Your task to perform on an android device: Go to location settings Image 0: 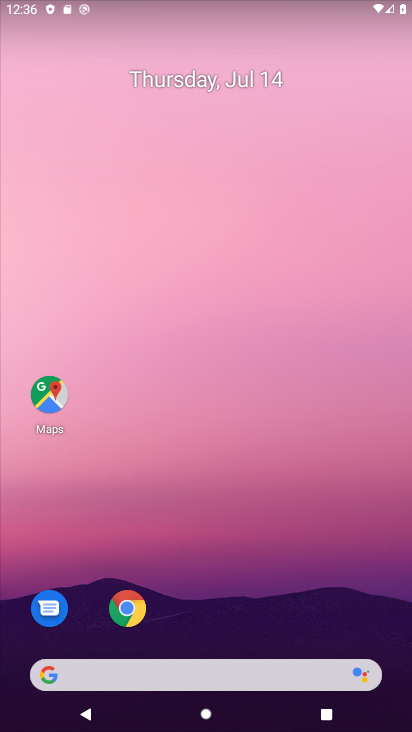
Step 0: drag from (291, 611) to (331, 38)
Your task to perform on an android device: Go to location settings Image 1: 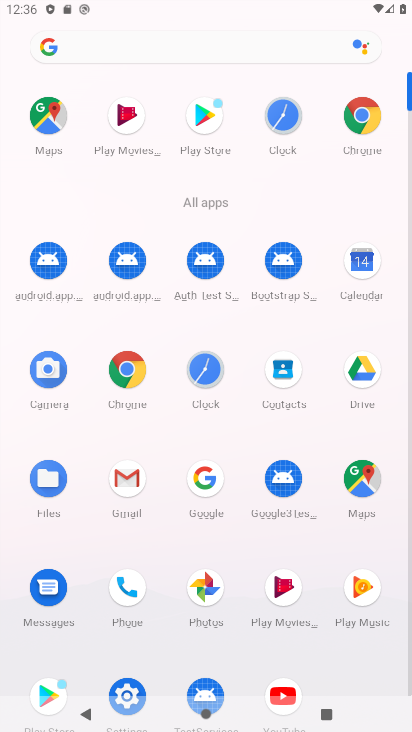
Step 1: click (54, 127)
Your task to perform on an android device: Go to location settings Image 2: 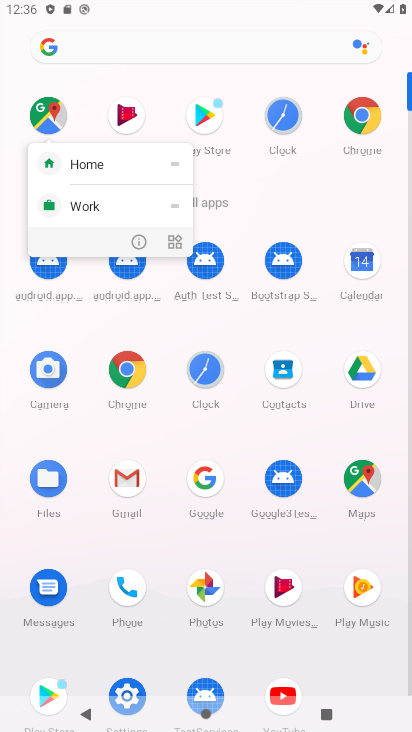
Step 2: press home button
Your task to perform on an android device: Go to location settings Image 3: 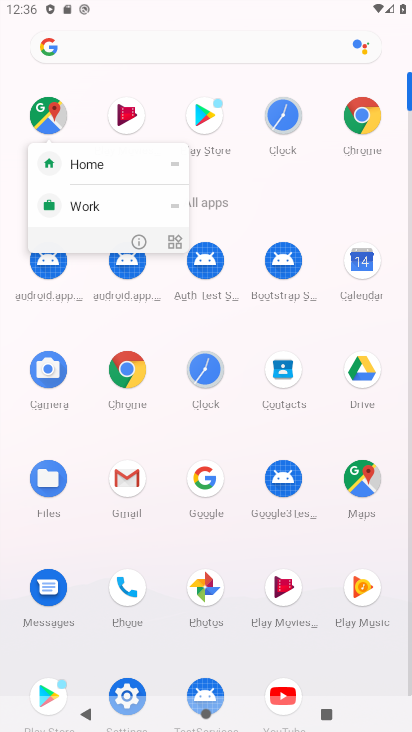
Step 3: press home button
Your task to perform on an android device: Go to location settings Image 4: 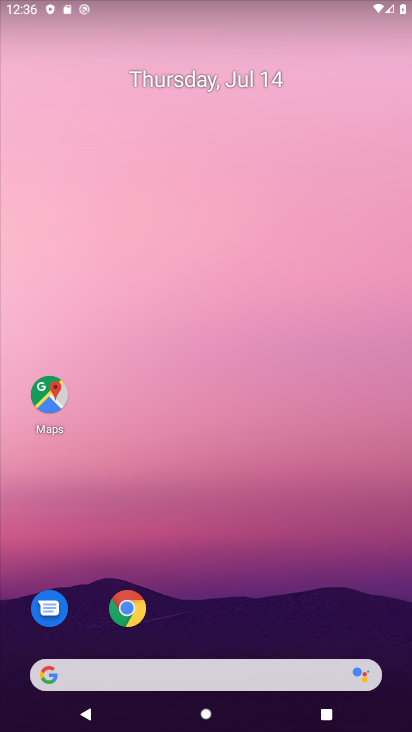
Step 4: drag from (302, 592) to (309, 16)
Your task to perform on an android device: Go to location settings Image 5: 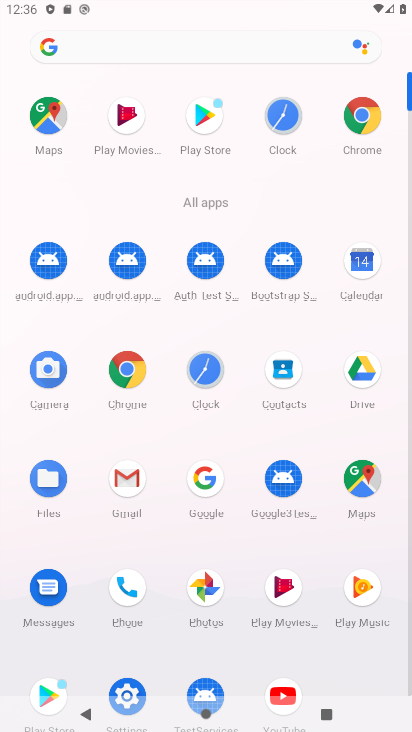
Step 5: click (133, 686)
Your task to perform on an android device: Go to location settings Image 6: 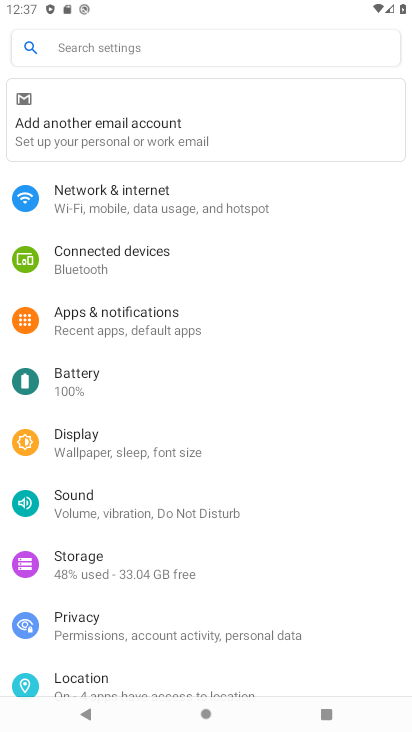
Step 6: click (131, 678)
Your task to perform on an android device: Go to location settings Image 7: 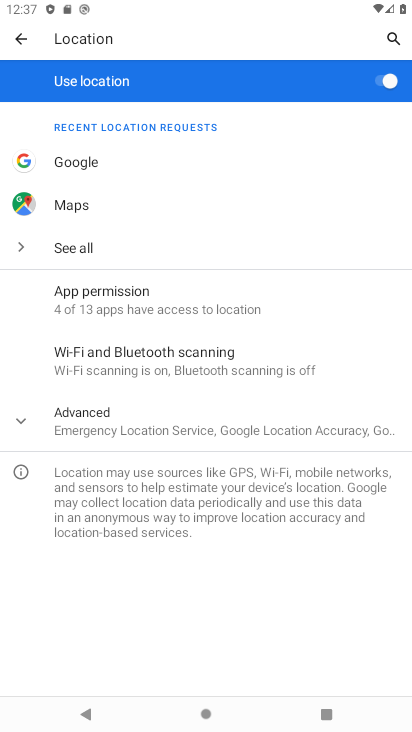
Step 7: task complete